Your task to perform on an android device: change notification settings in the gmail app Image 0: 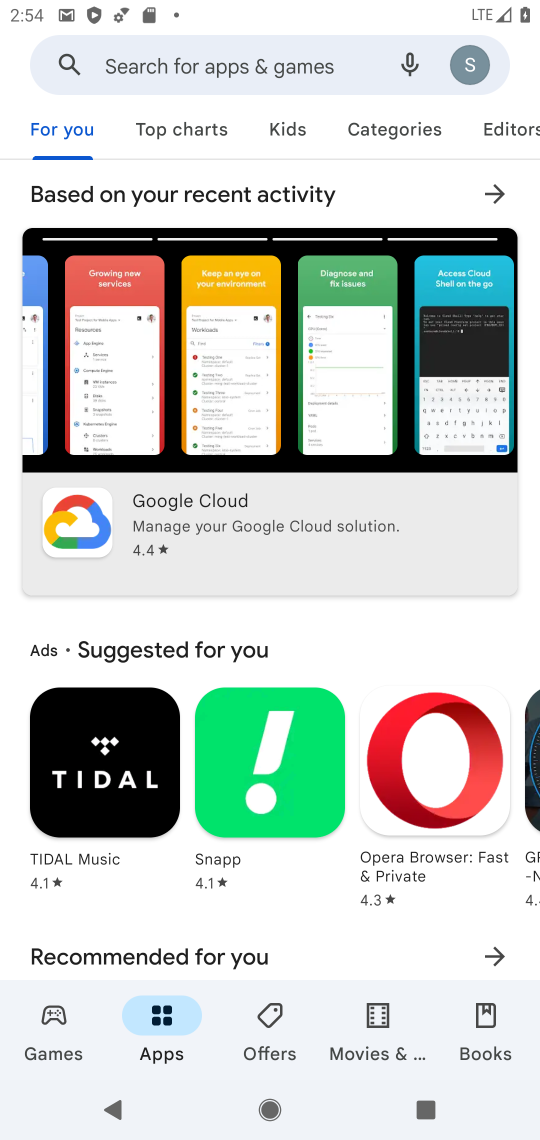
Step 0: press home button
Your task to perform on an android device: change notification settings in the gmail app Image 1: 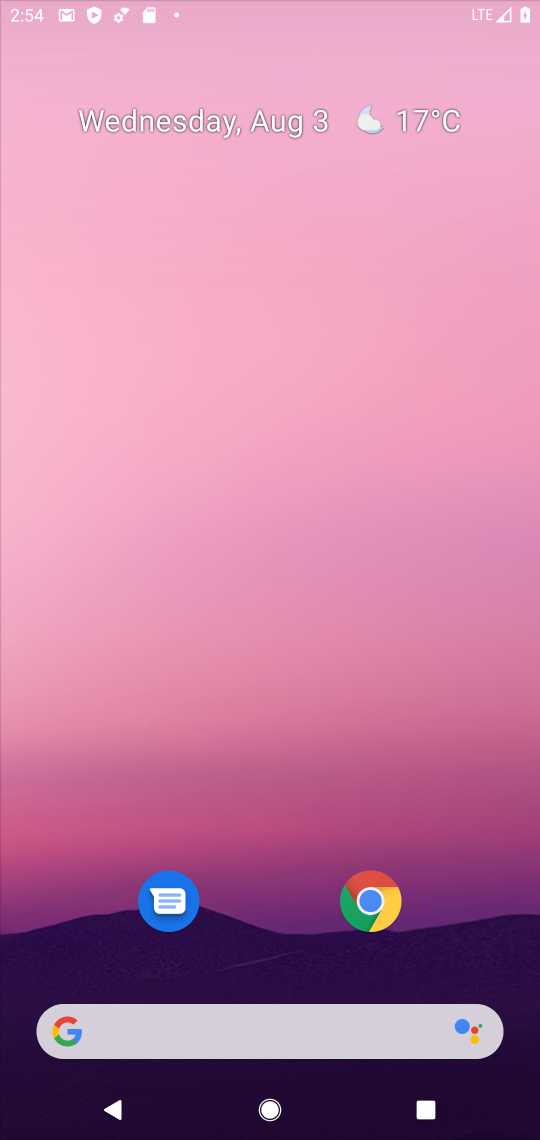
Step 1: drag from (188, 1064) to (178, 279)
Your task to perform on an android device: change notification settings in the gmail app Image 2: 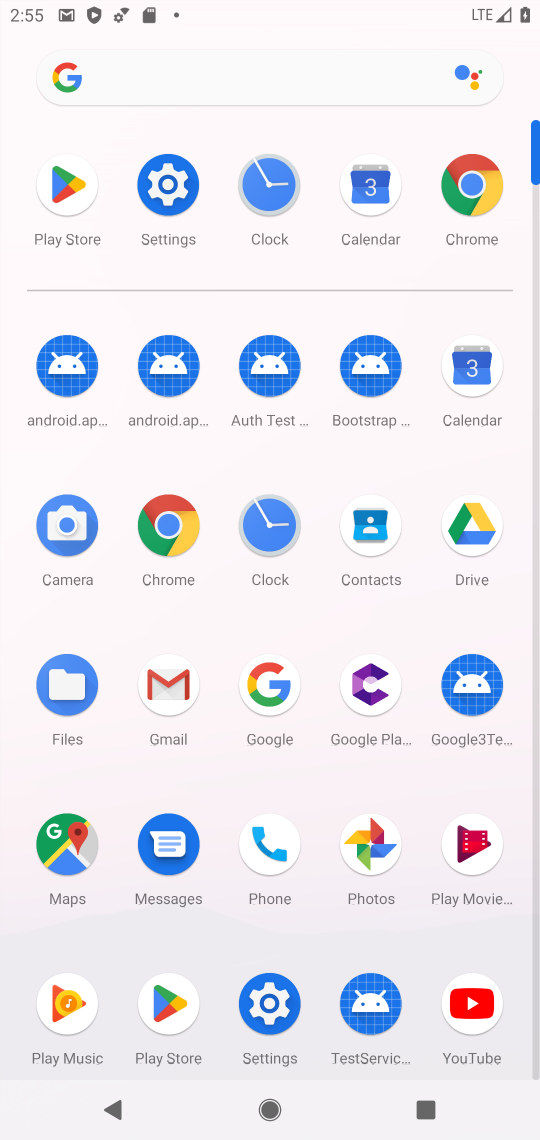
Step 2: click (156, 683)
Your task to perform on an android device: change notification settings in the gmail app Image 3: 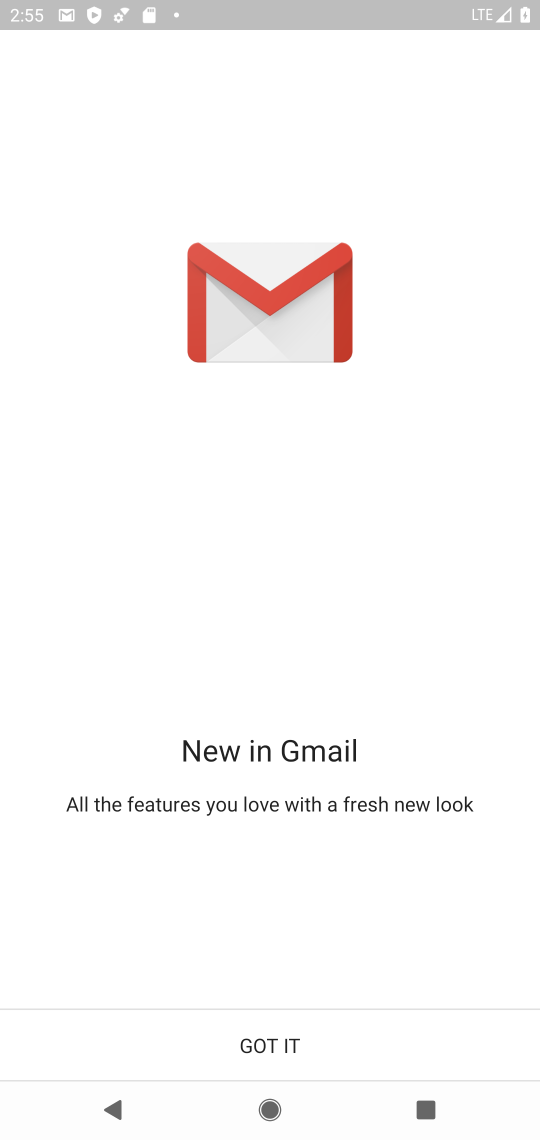
Step 3: click (250, 1032)
Your task to perform on an android device: change notification settings in the gmail app Image 4: 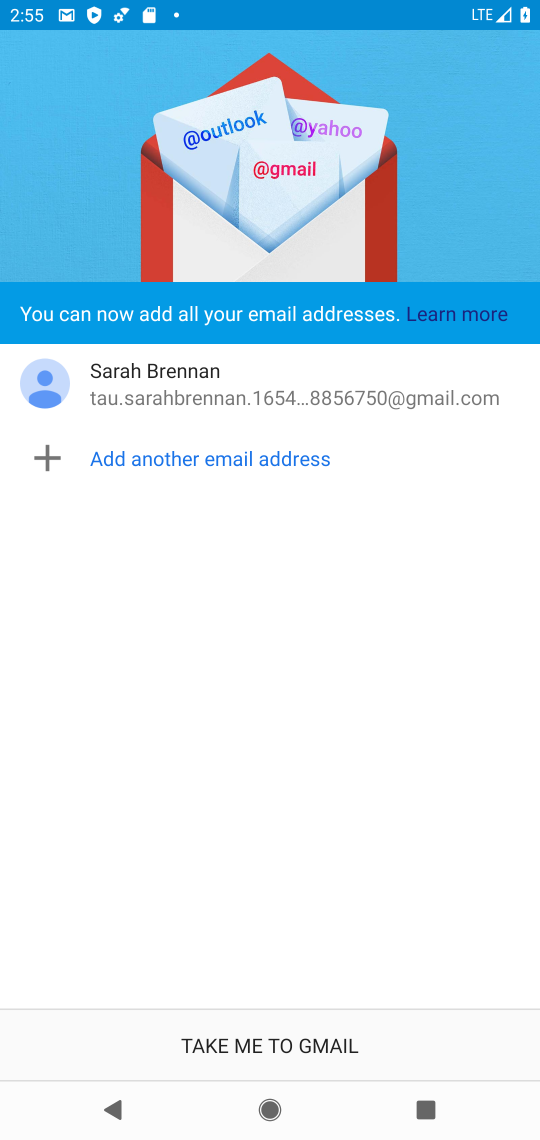
Step 4: click (250, 1032)
Your task to perform on an android device: change notification settings in the gmail app Image 5: 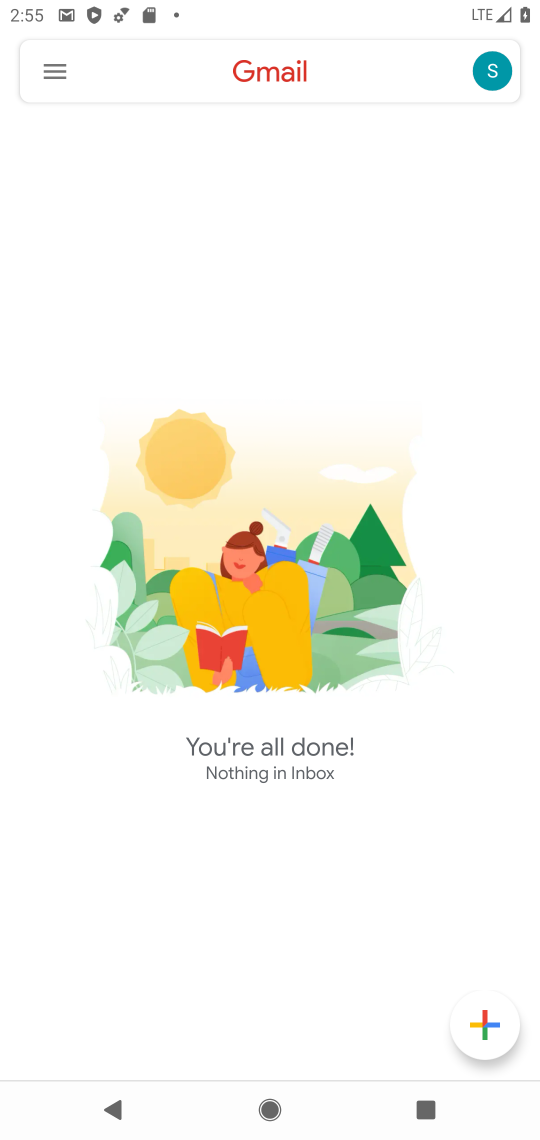
Step 5: click (43, 62)
Your task to perform on an android device: change notification settings in the gmail app Image 6: 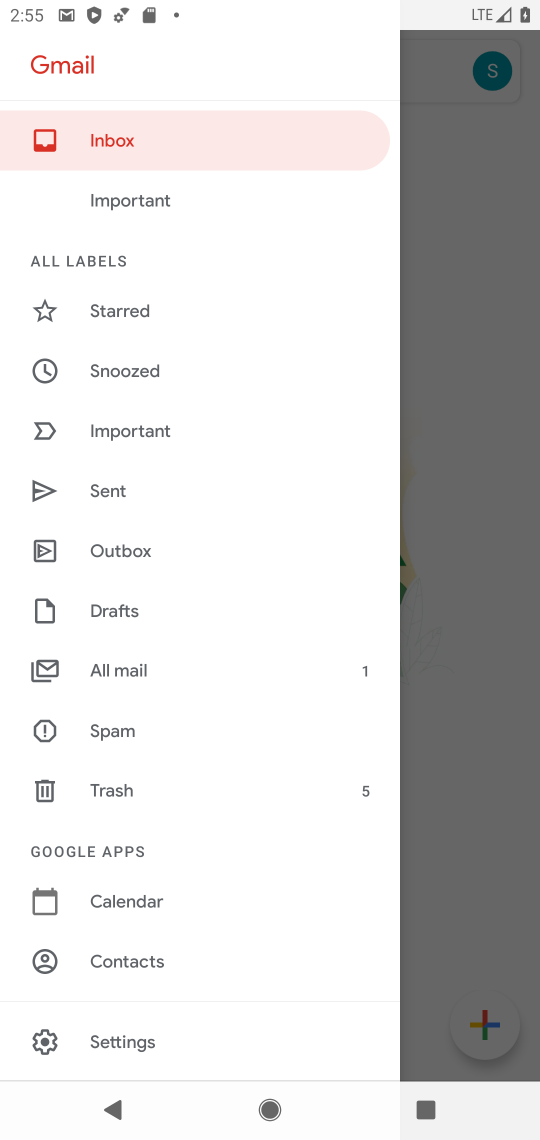
Step 6: click (124, 1028)
Your task to perform on an android device: change notification settings in the gmail app Image 7: 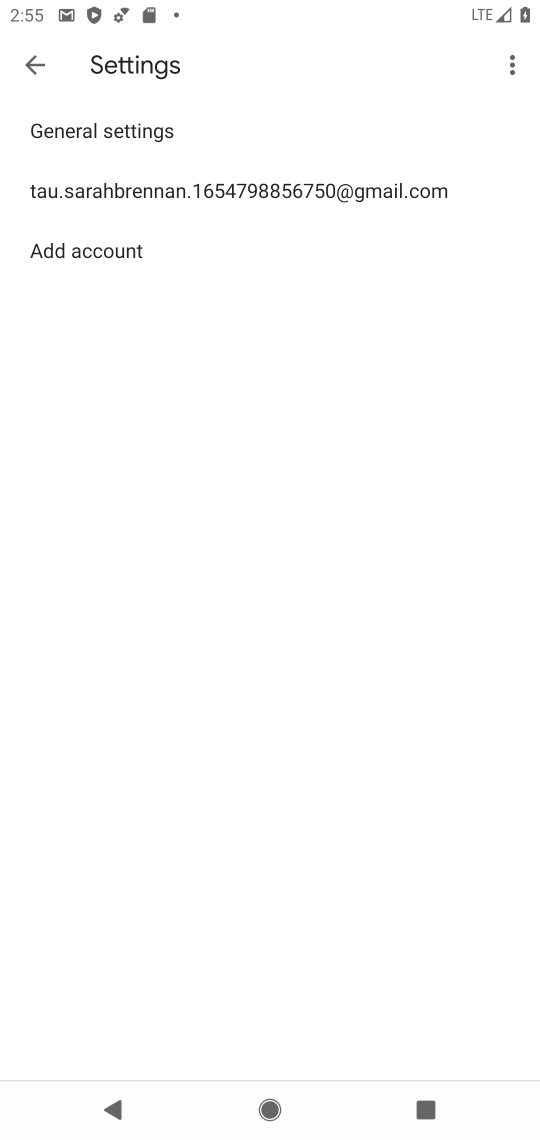
Step 7: click (210, 199)
Your task to perform on an android device: change notification settings in the gmail app Image 8: 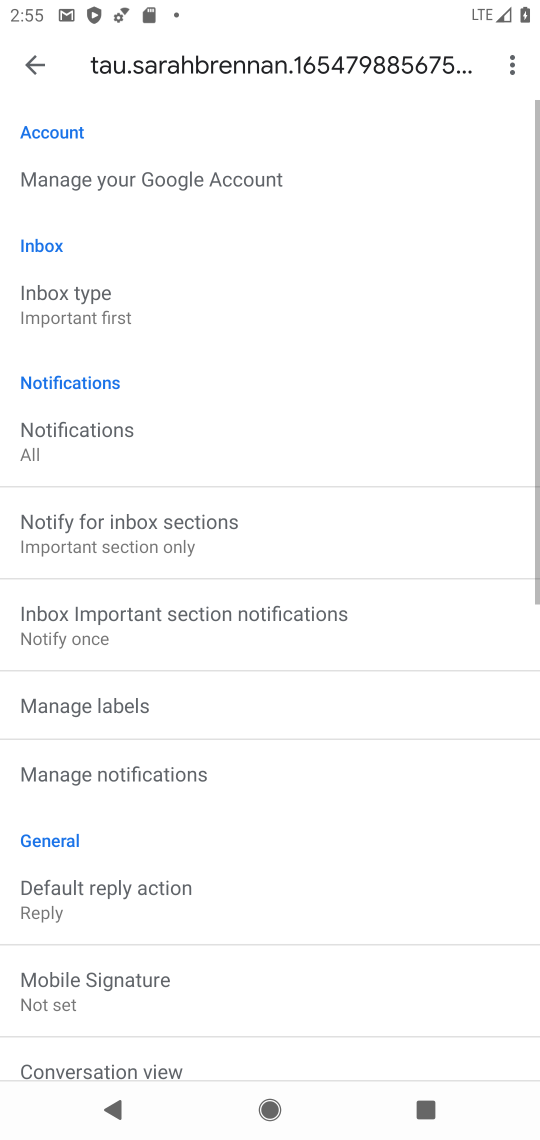
Step 8: click (122, 429)
Your task to perform on an android device: change notification settings in the gmail app Image 9: 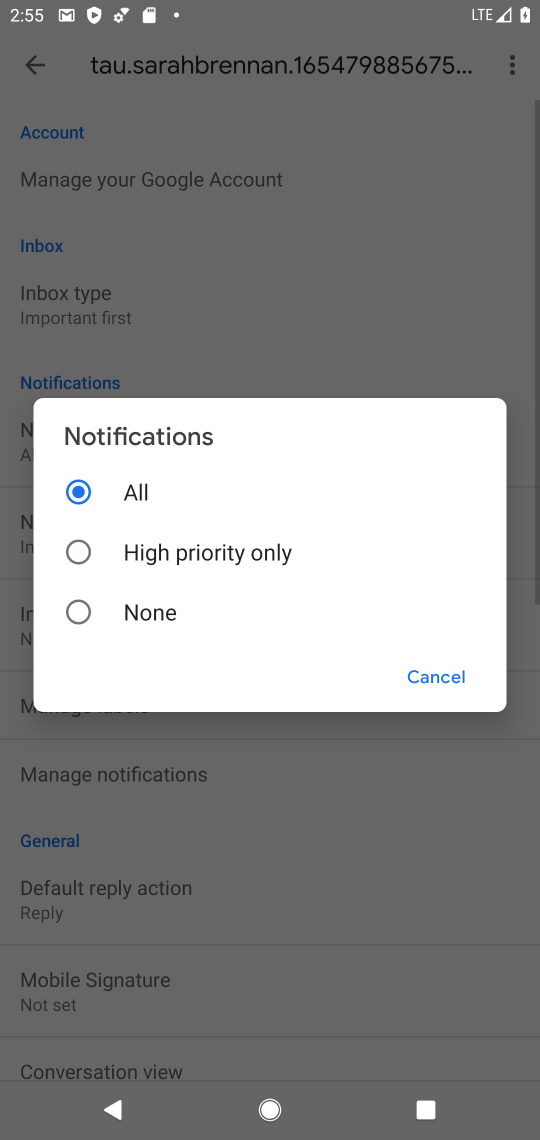
Step 9: click (145, 611)
Your task to perform on an android device: change notification settings in the gmail app Image 10: 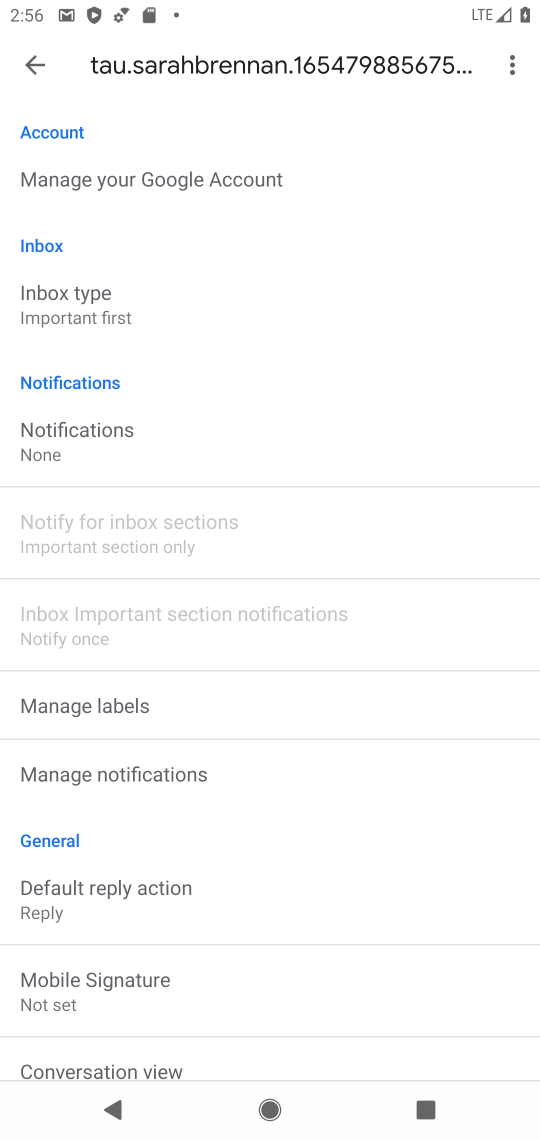
Step 10: task complete